Your task to perform on an android device: toggle priority inbox in the gmail app Image 0: 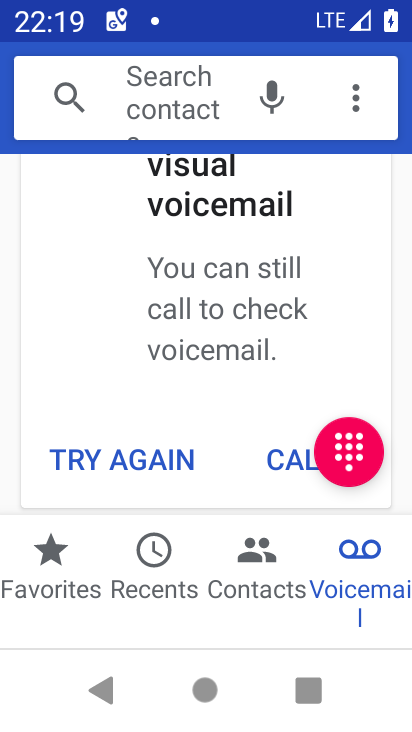
Step 0: press home button
Your task to perform on an android device: toggle priority inbox in the gmail app Image 1: 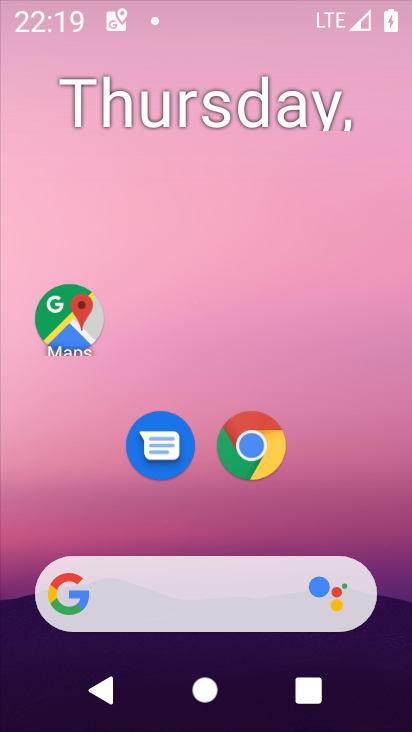
Step 1: drag from (206, 526) to (244, 165)
Your task to perform on an android device: toggle priority inbox in the gmail app Image 2: 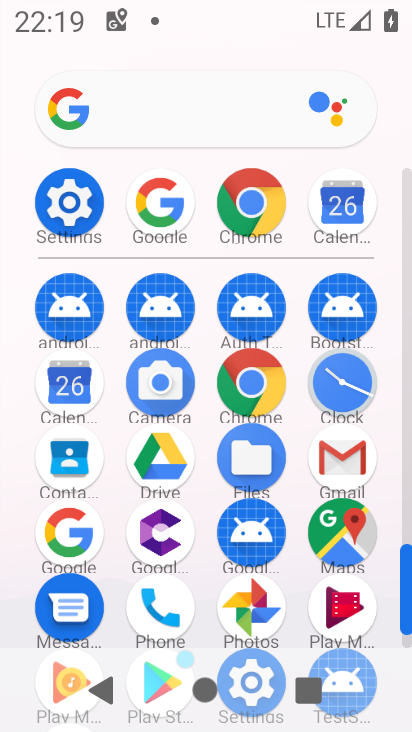
Step 2: click (327, 459)
Your task to perform on an android device: toggle priority inbox in the gmail app Image 3: 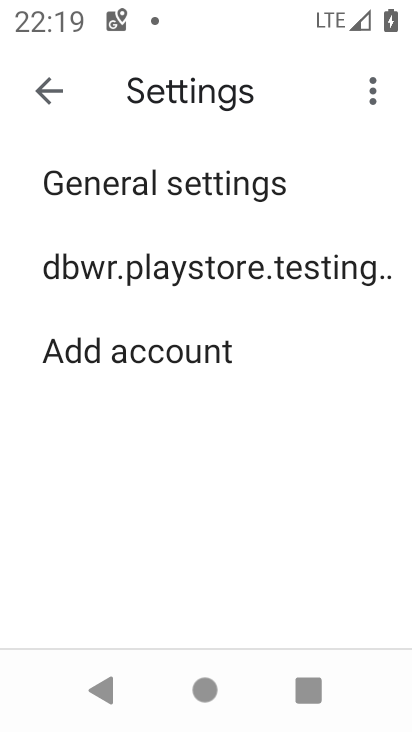
Step 3: click (247, 269)
Your task to perform on an android device: toggle priority inbox in the gmail app Image 4: 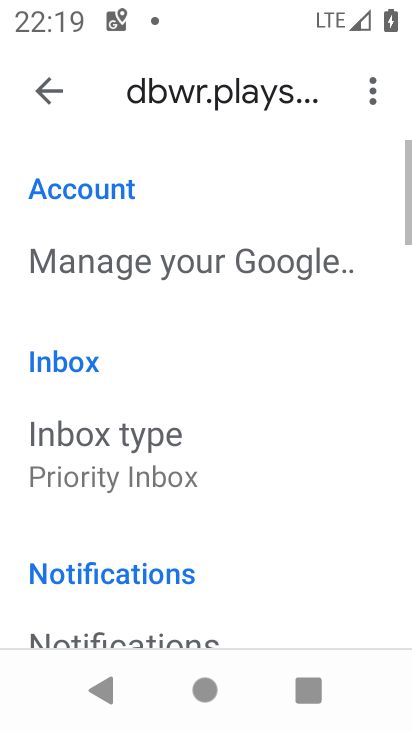
Step 4: drag from (195, 529) to (221, 229)
Your task to perform on an android device: toggle priority inbox in the gmail app Image 5: 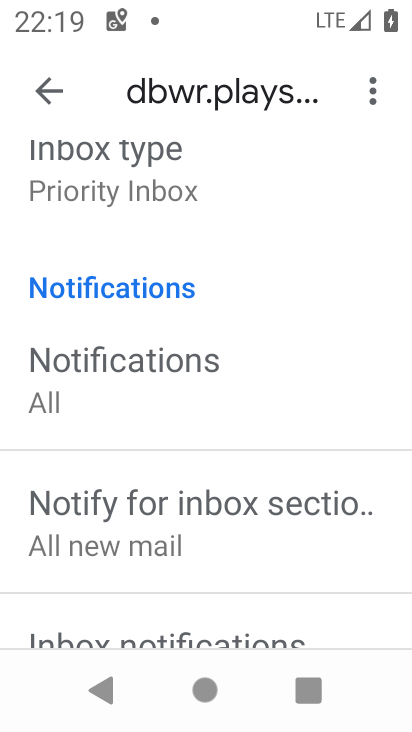
Step 5: click (206, 200)
Your task to perform on an android device: toggle priority inbox in the gmail app Image 6: 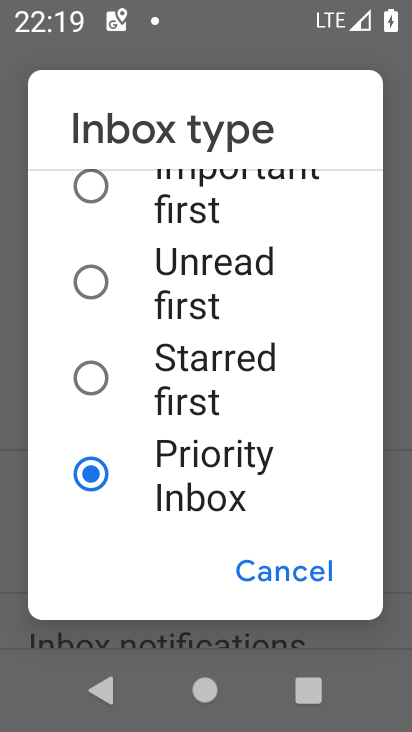
Step 6: click (183, 222)
Your task to perform on an android device: toggle priority inbox in the gmail app Image 7: 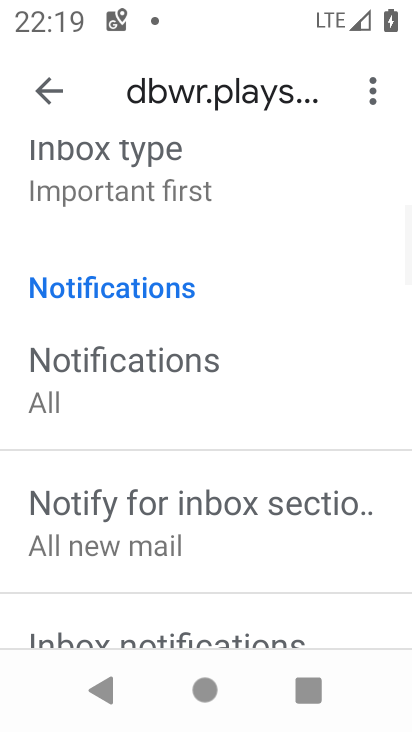
Step 7: task complete